Your task to perform on an android device: create a new album in the google photos Image 0: 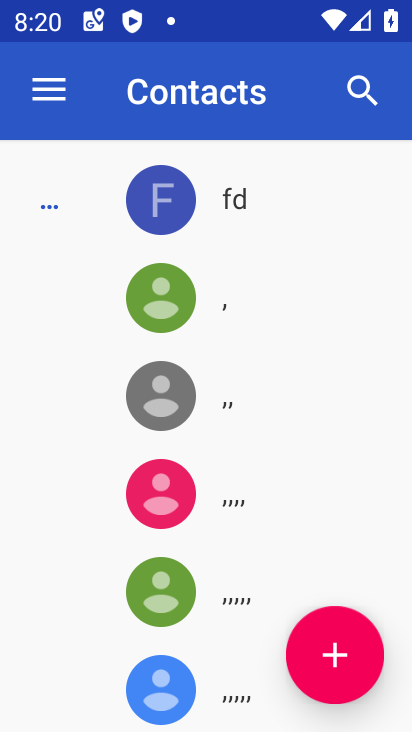
Step 0: press home button
Your task to perform on an android device: create a new album in the google photos Image 1: 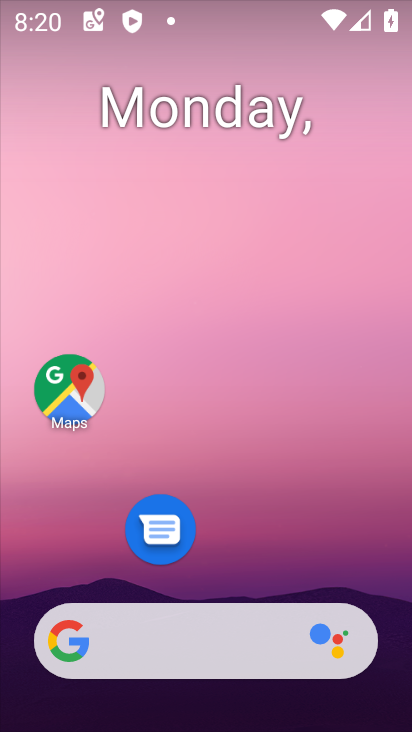
Step 1: drag from (217, 574) to (235, 178)
Your task to perform on an android device: create a new album in the google photos Image 2: 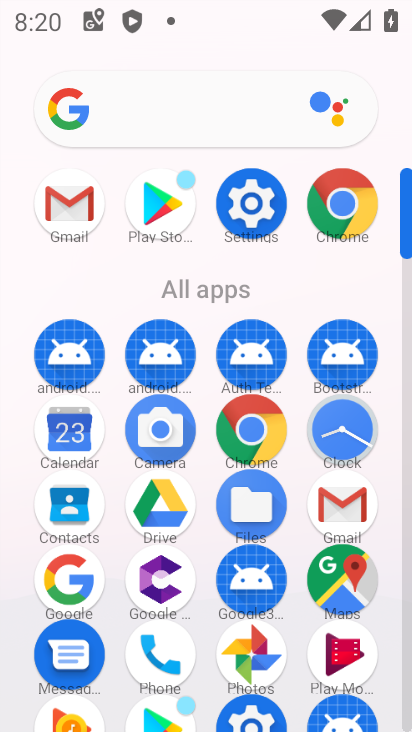
Step 2: click (234, 645)
Your task to perform on an android device: create a new album in the google photos Image 3: 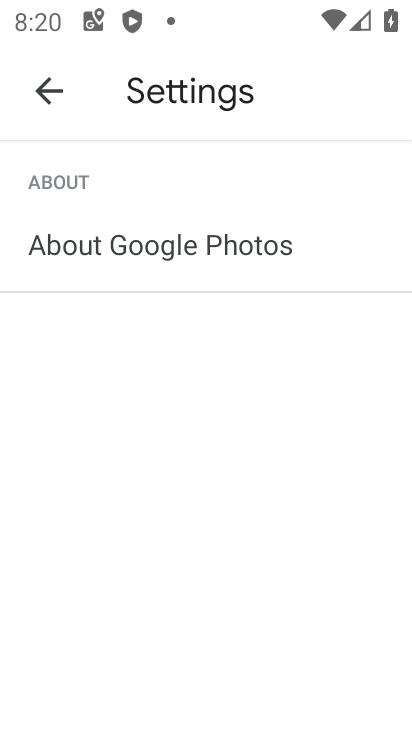
Step 3: click (33, 90)
Your task to perform on an android device: create a new album in the google photos Image 4: 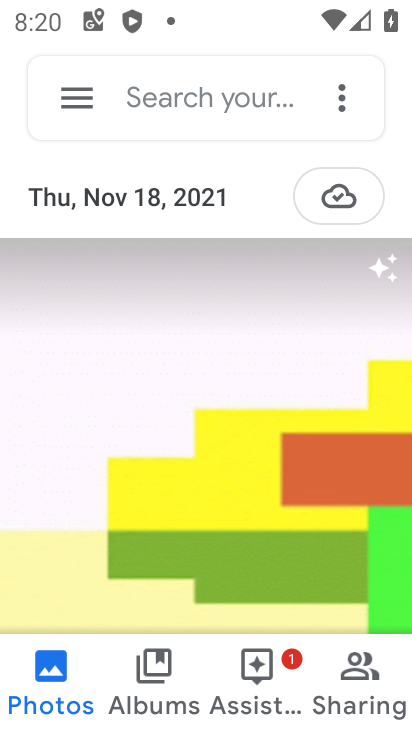
Step 4: click (338, 93)
Your task to perform on an android device: create a new album in the google photos Image 5: 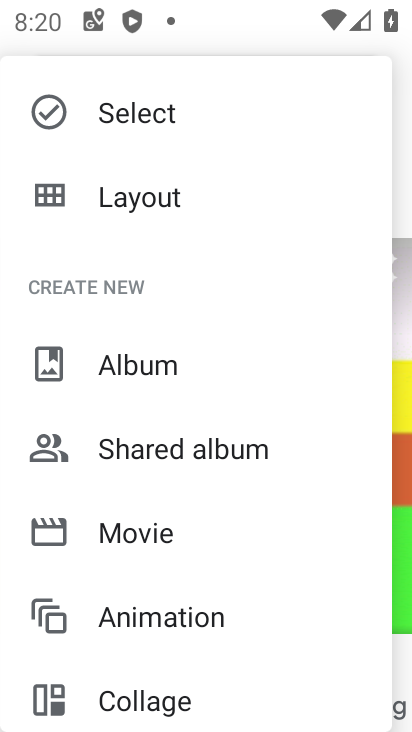
Step 5: click (169, 359)
Your task to perform on an android device: create a new album in the google photos Image 6: 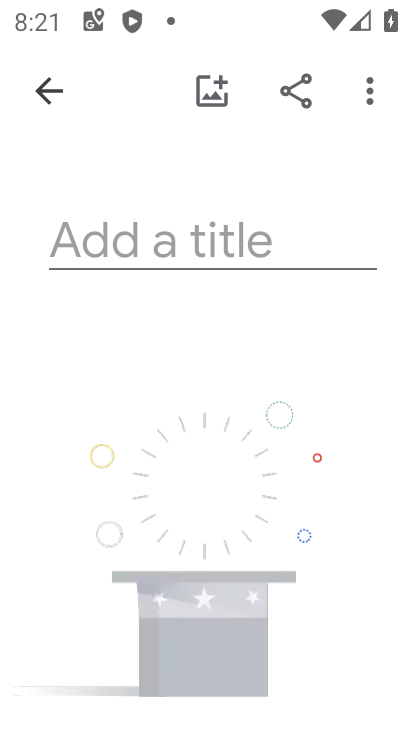
Step 6: click (169, 228)
Your task to perform on an android device: create a new album in the google photos Image 7: 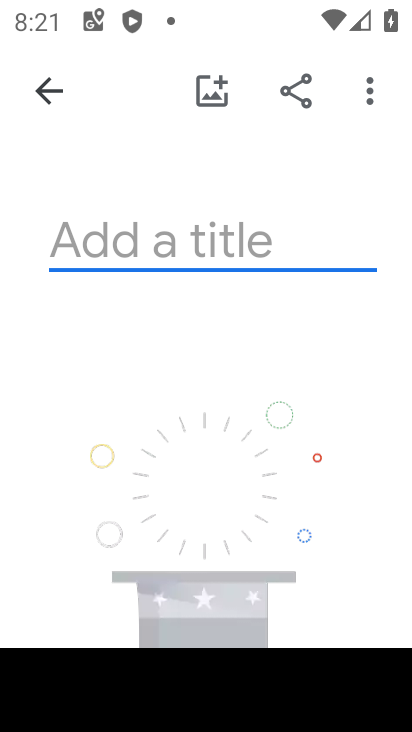
Step 7: type "khjvjk"
Your task to perform on an android device: create a new album in the google photos Image 8: 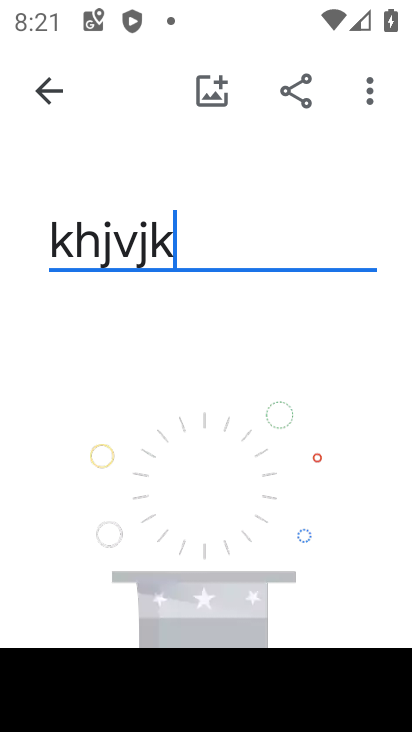
Step 8: drag from (242, 565) to (284, 158)
Your task to perform on an android device: create a new album in the google photos Image 9: 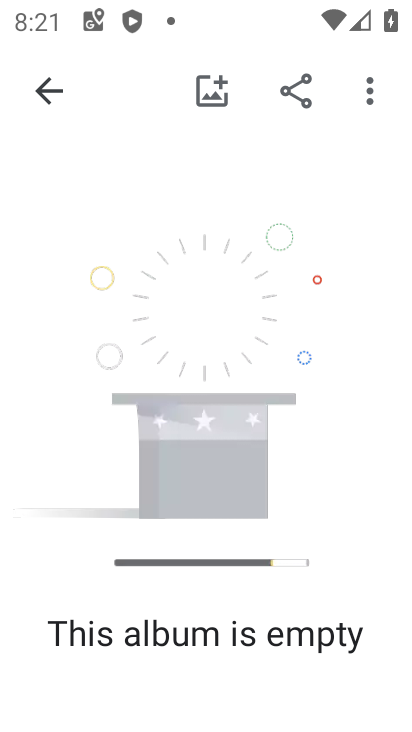
Step 9: drag from (203, 592) to (241, 184)
Your task to perform on an android device: create a new album in the google photos Image 10: 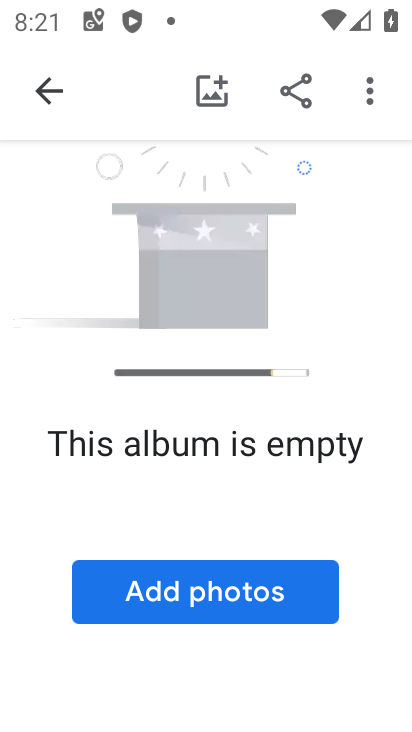
Step 10: click (228, 582)
Your task to perform on an android device: create a new album in the google photos Image 11: 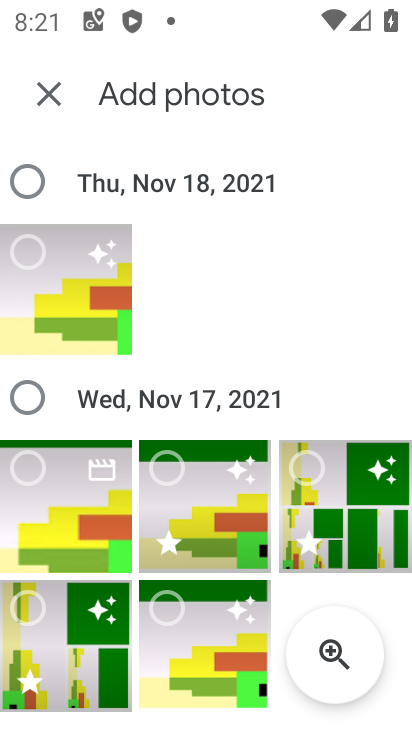
Step 11: click (29, 464)
Your task to perform on an android device: create a new album in the google photos Image 12: 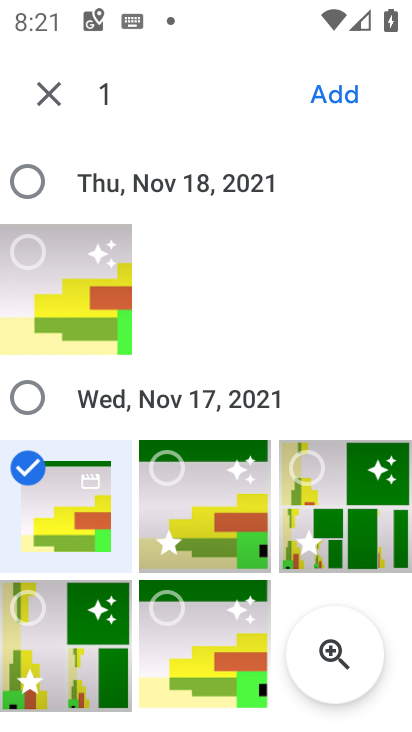
Step 12: click (341, 89)
Your task to perform on an android device: create a new album in the google photos Image 13: 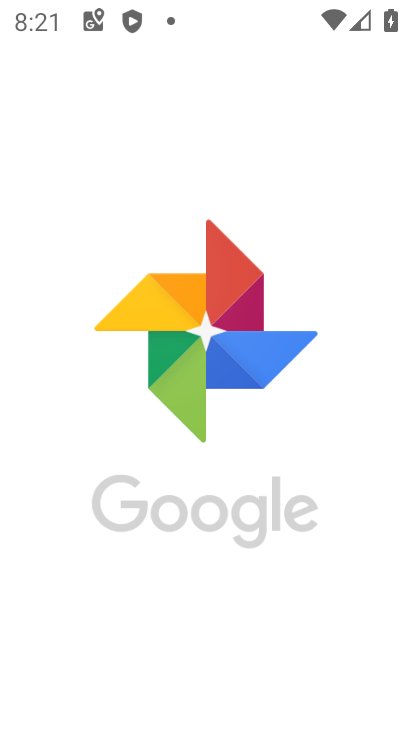
Step 13: task complete